Your task to perform on an android device: see tabs open on other devices in the chrome app Image 0: 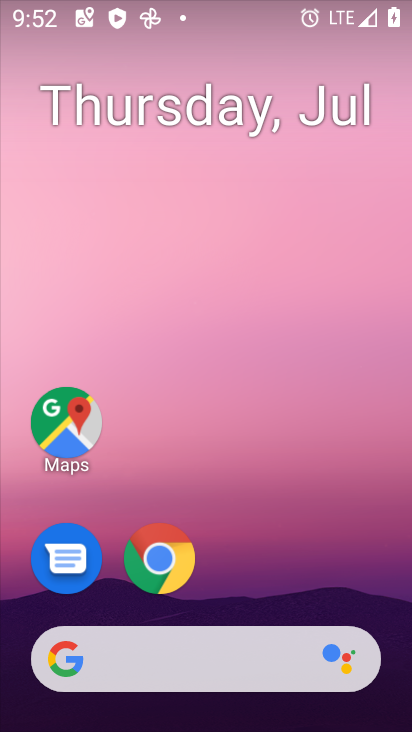
Step 0: drag from (372, 516) to (364, 207)
Your task to perform on an android device: see tabs open on other devices in the chrome app Image 1: 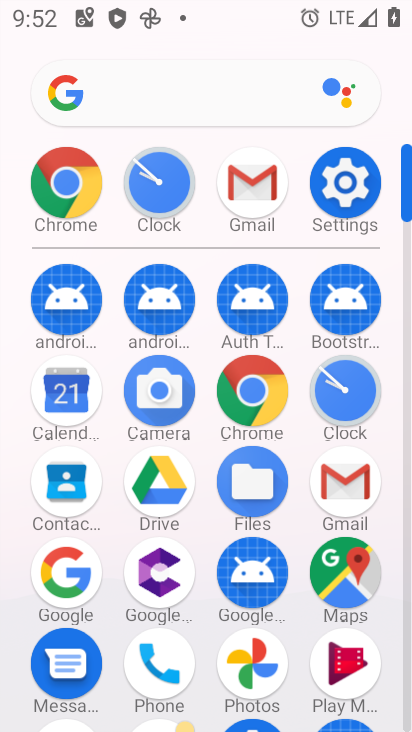
Step 1: click (265, 387)
Your task to perform on an android device: see tabs open on other devices in the chrome app Image 2: 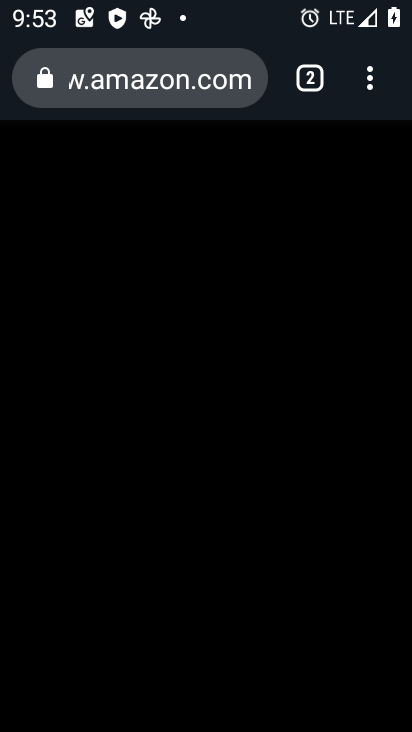
Step 2: click (373, 94)
Your task to perform on an android device: see tabs open on other devices in the chrome app Image 3: 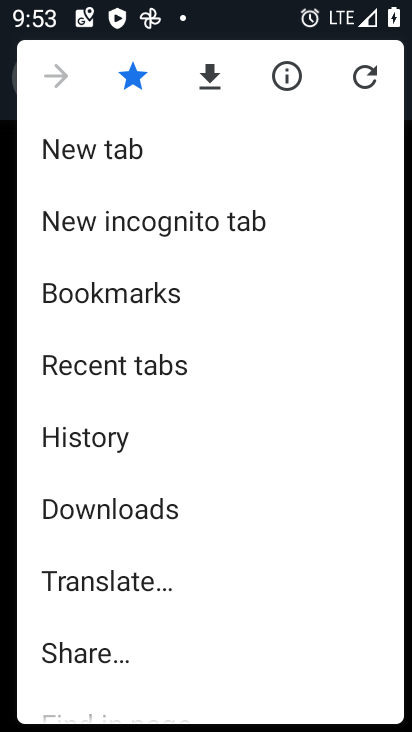
Step 3: click (176, 361)
Your task to perform on an android device: see tabs open on other devices in the chrome app Image 4: 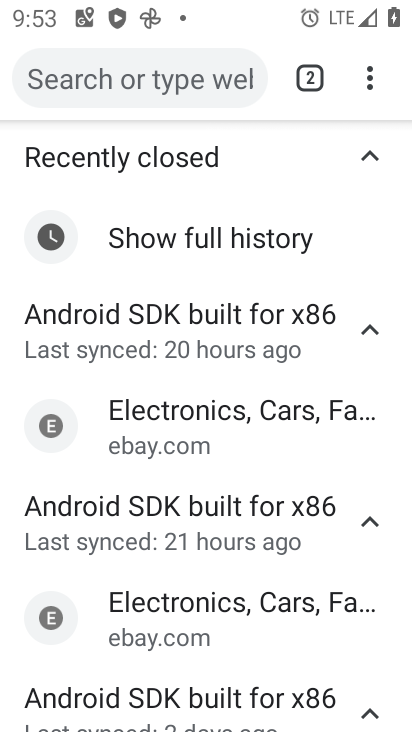
Step 4: click (307, 76)
Your task to perform on an android device: see tabs open on other devices in the chrome app Image 5: 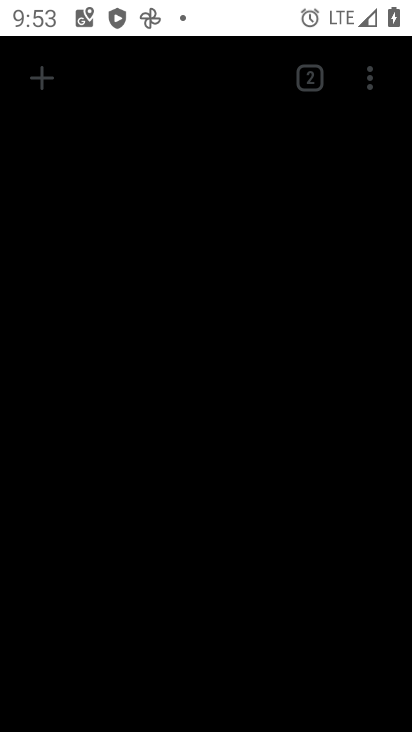
Step 5: task complete